Your task to perform on an android device: Open Google Chrome and click the shortcut for Amazon.com Image 0: 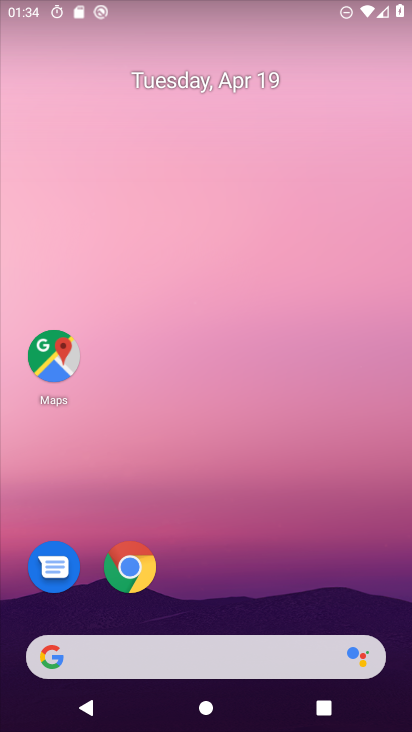
Step 0: drag from (273, 587) to (254, 98)
Your task to perform on an android device: Open Google Chrome and click the shortcut for Amazon.com Image 1: 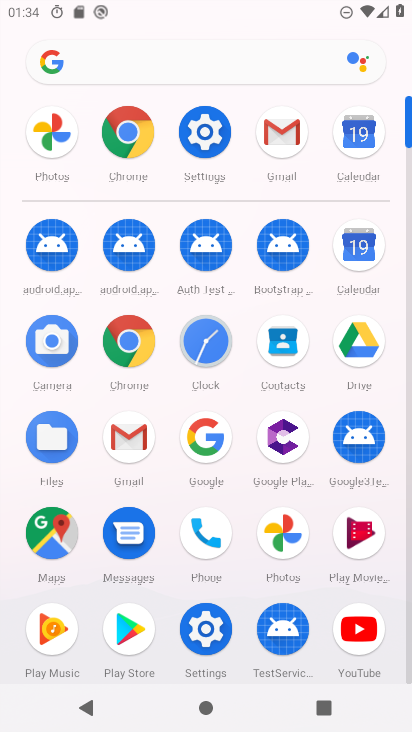
Step 1: click (128, 334)
Your task to perform on an android device: Open Google Chrome and click the shortcut for Amazon.com Image 2: 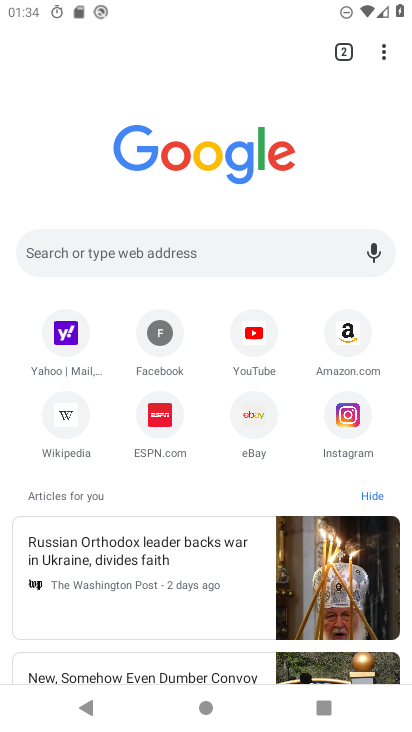
Step 2: click (364, 349)
Your task to perform on an android device: Open Google Chrome and click the shortcut for Amazon.com Image 3: 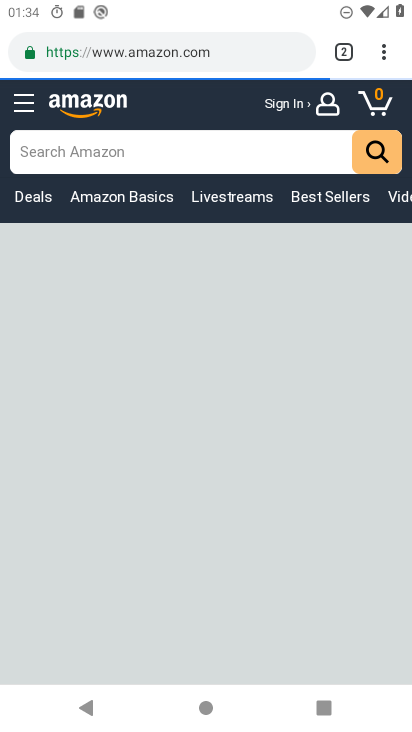
Step 3: task complete